Your task to perform on an android device: search for starred emails in the gmail app Image 0: 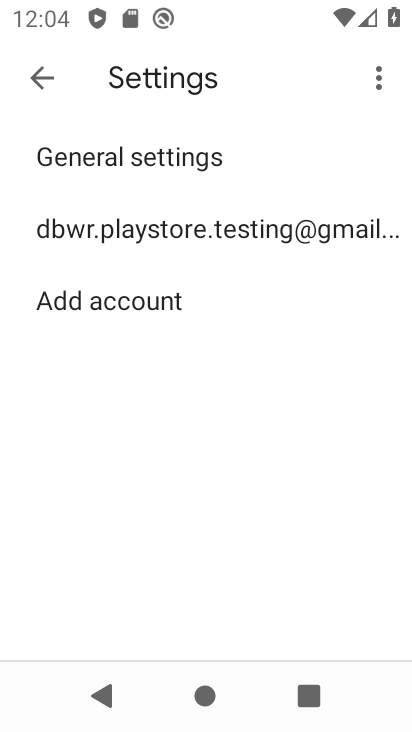
Step 0: press home button
Your task to perform on an android device: search for starred emails in the gmail app Image 1: 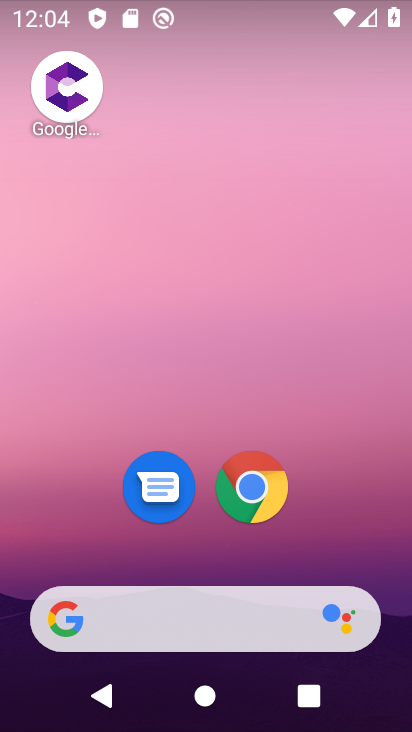
Step 1: drag from (329, 525) to (250, 26)
Your task to perform on an android device: search for starred emails in the gmail app Image 2: 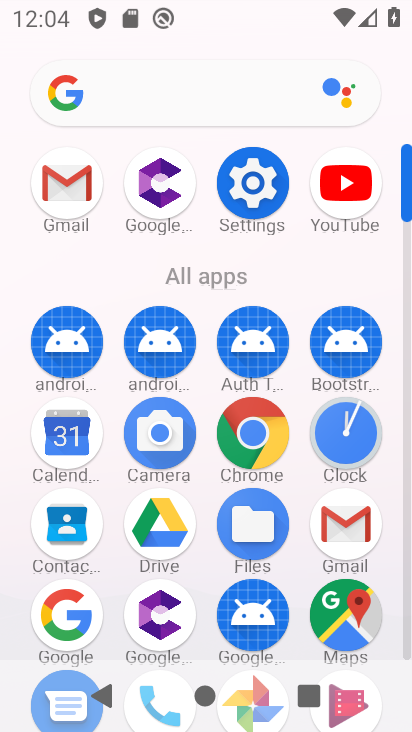
Step 2: click (69, 200)
Your task to perform on an android device: search for starred emails in the gmail app Image 3: 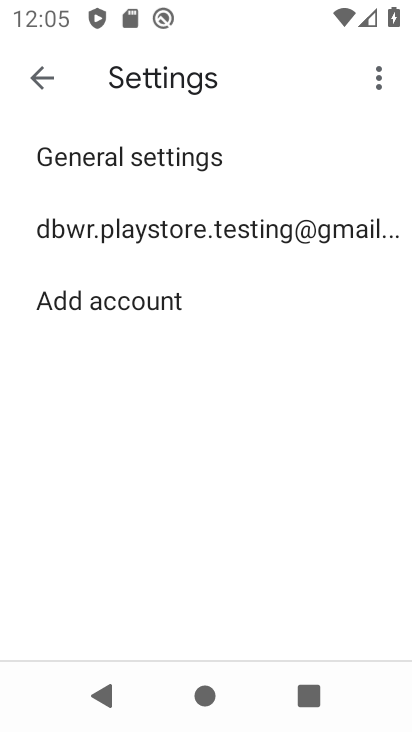
Step 3: click (45, 80)
Your task to perform on an android device: search for starred emails in the gmail app Image 4: 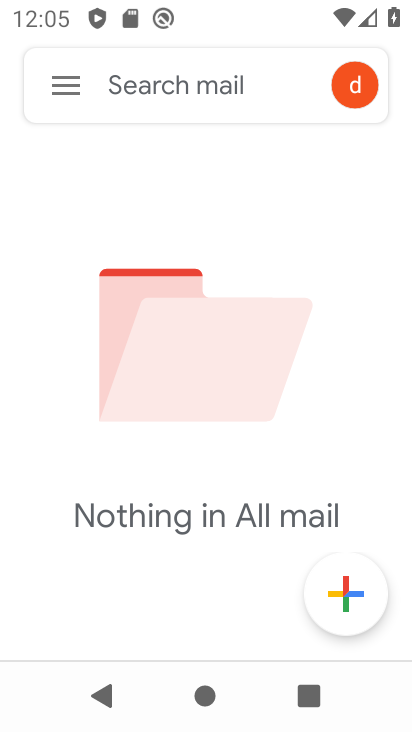
Step 4: click (218, 71)
Your task to perform on an android device: search for starred emails in the gmail app Image 5: 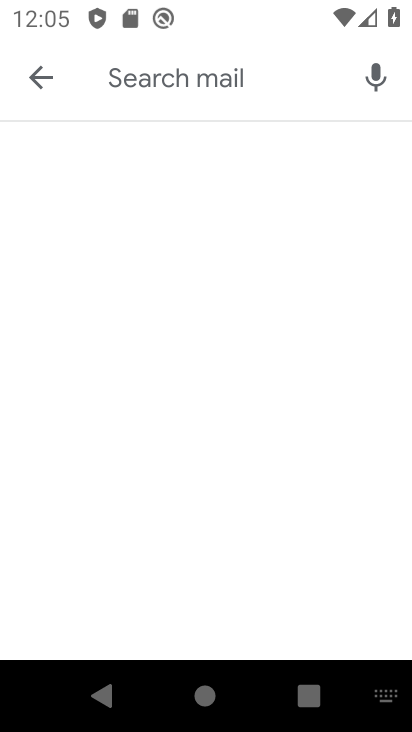
Step 5: type "starred"
Your task to perform on an android device: search for starred emails in the gmail app Image 6: 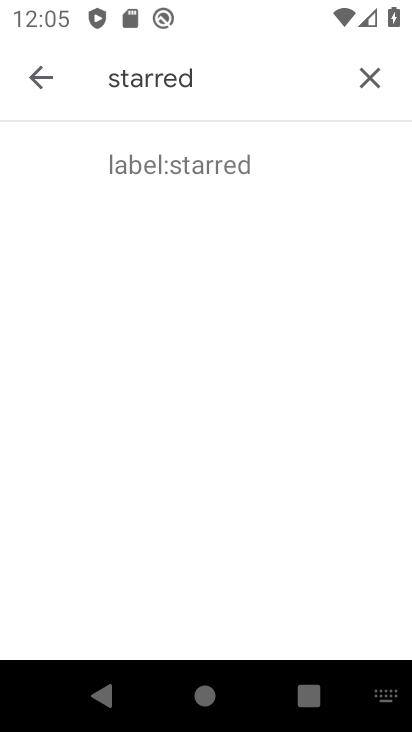
Step 6: click (242, 169)
Your task to perform on an android device: search for starred emails in the gmail app Image 7: 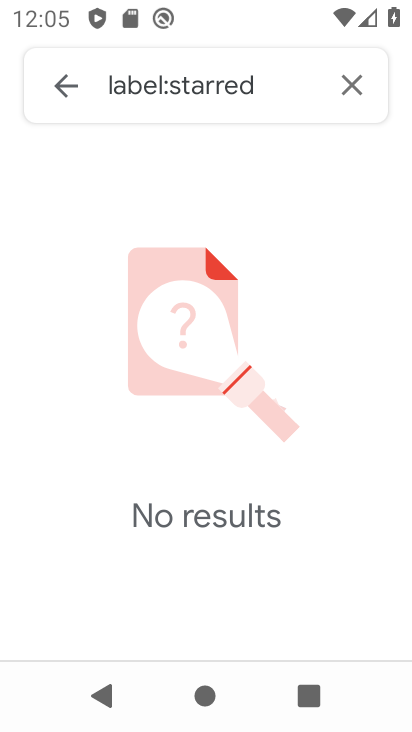
Step 7: task complete